Your task to perform on an android device: Is it going to rain today? Image 0: 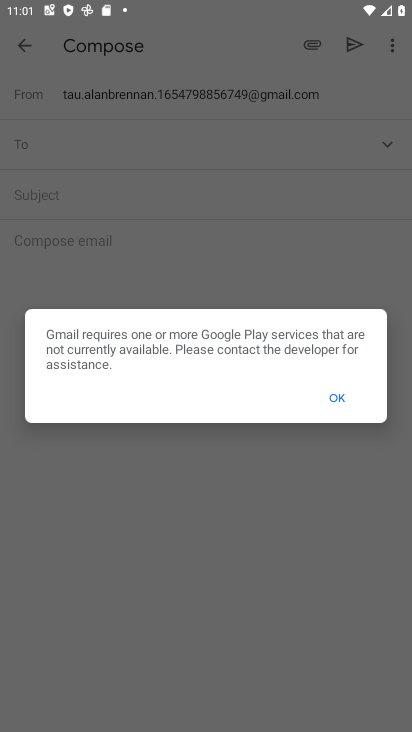
Step 0: click (347, 397)
Your task to perform on an android device: Is it going to rain today? Image 1: 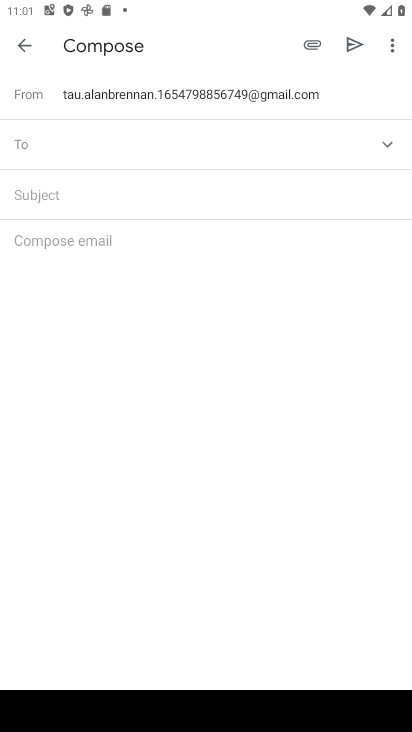
Step 1: press home button
Your task to perform on an android device: Is it going to rain today? Image 2: 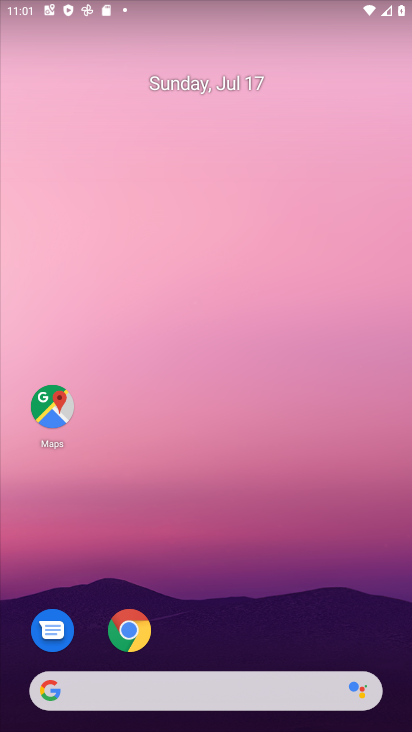
Step 2: click (251, 675)
Your task to perform on an android device: Is it going to rain today? Image 3: 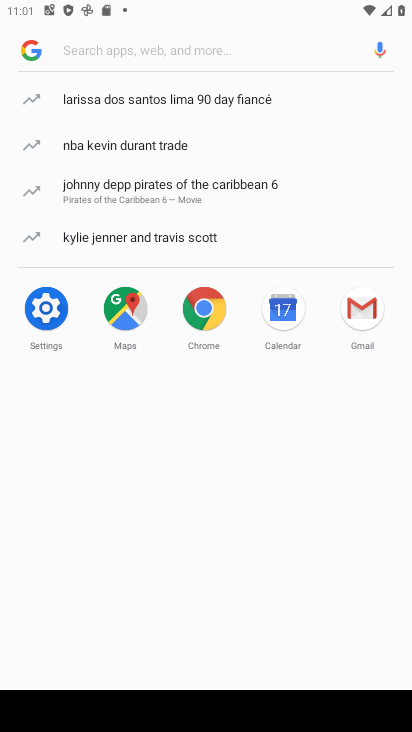
Step 3: type "rain"
Your task to perform on an android device: Is it going to rain today? Image 4: 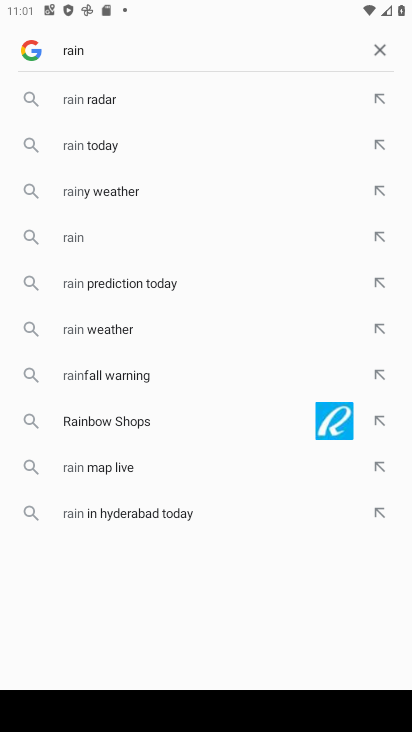
Step 4: click (160, 142)
Your task to perform on an android device: Is it going to rain today? Image 5: 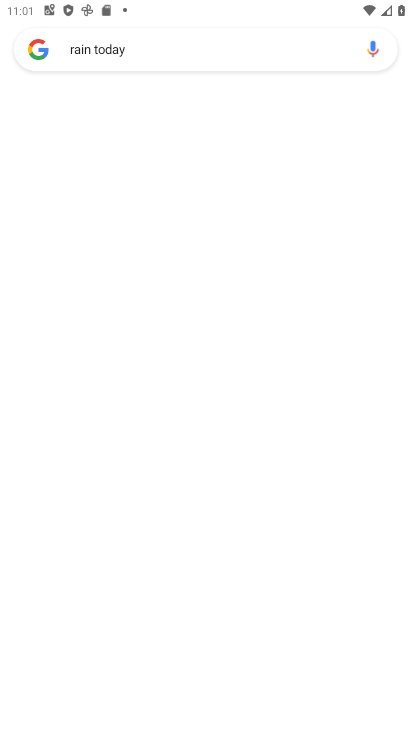
Step 5: task complete